Your task to perform on an android device: When is my next appointment? Image 0: 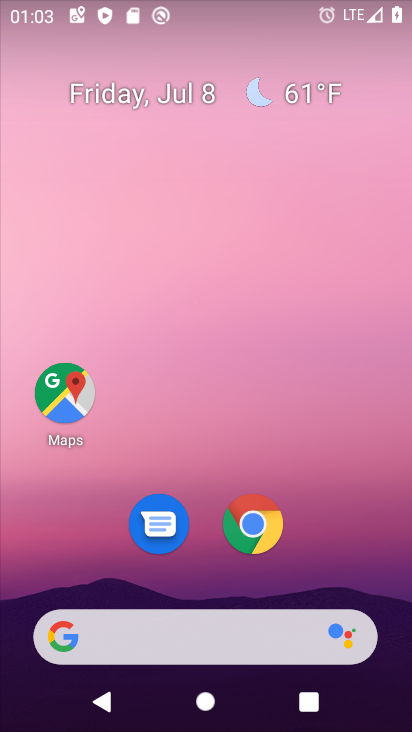
Step 0: drag from (255, 443) to (279, 14)
Your task to perform on an android device: When is my next appointment? Image 1: 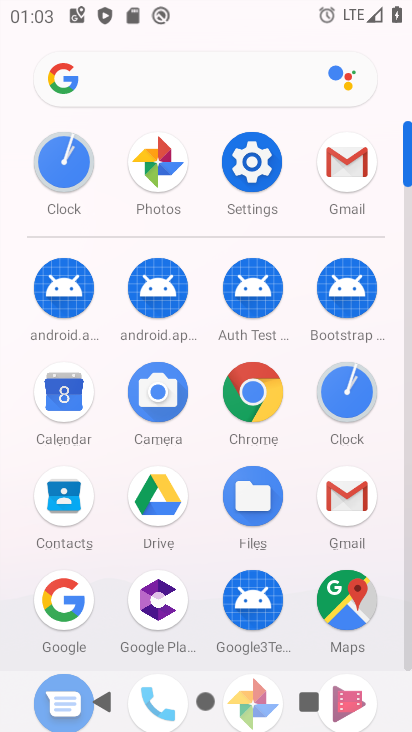
Step 1: click (73, 386)
Your task to perform on an android device: When is my next appointment? Image 2: 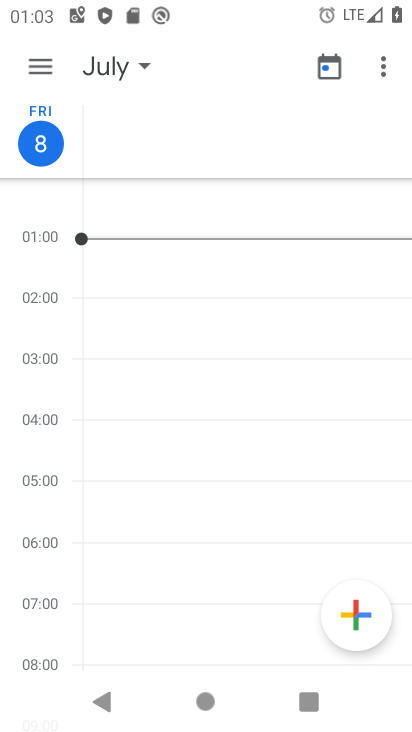
Step 2: drag from (205, 534) to (275, 190)
Your task to perform on an android device: When is my next appointment? Image 3: 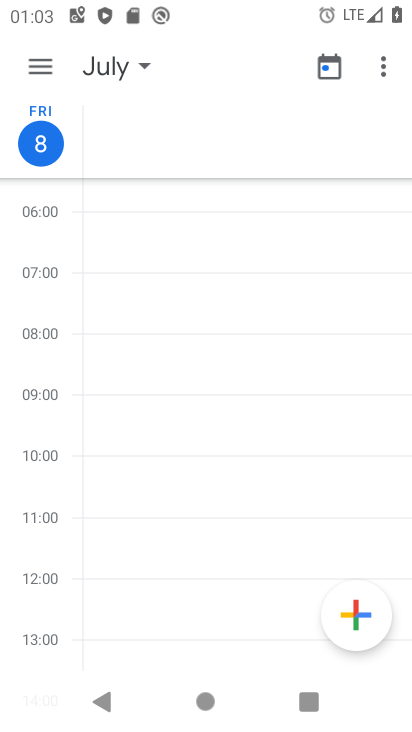
Step 3: drag from (201, 533) to (222, 217)
Your task to perform on an android device: When is my next appointment? Image 4: 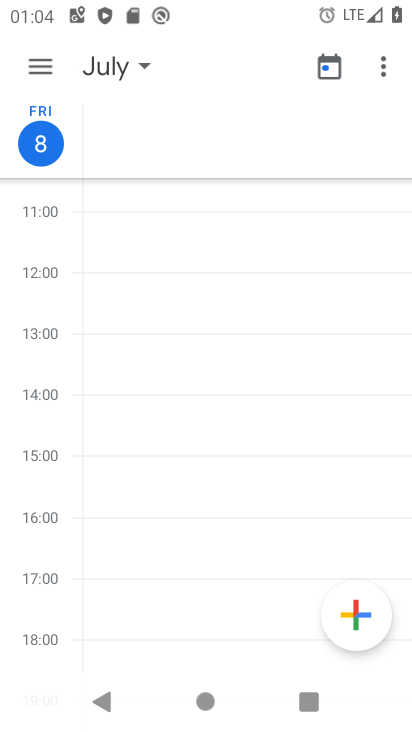
Step 4: click (41, 62)
Your task to perform on an android device: When is my next appointment? Image 5: 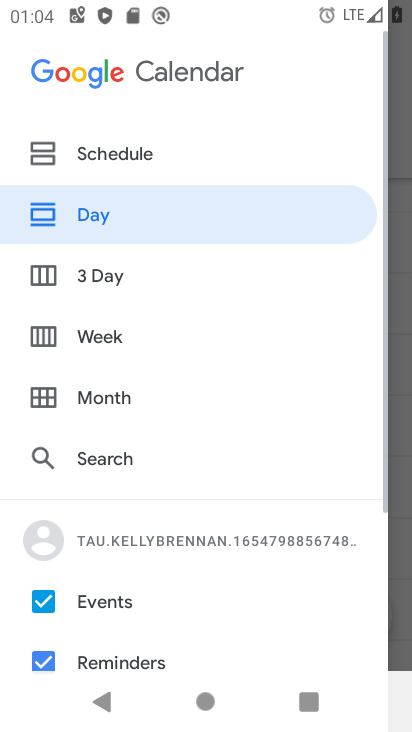
Step 5: click (108, 148)
Your task to perform on an android device: When is my next appointment? Image 6: 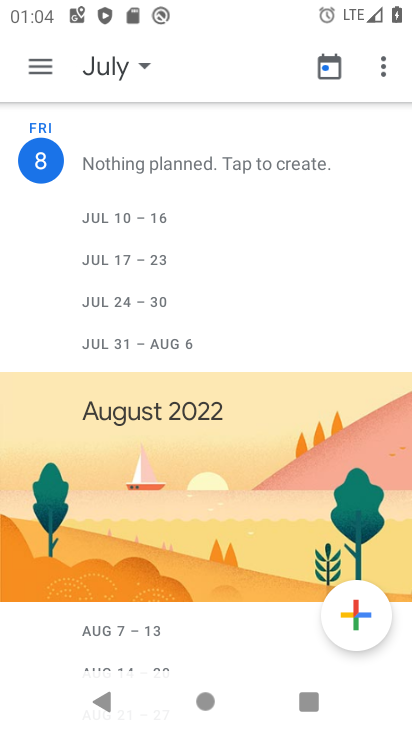
Step 6: task complete